Your task to perform on an android device: Is it going to rain today? Image 0: 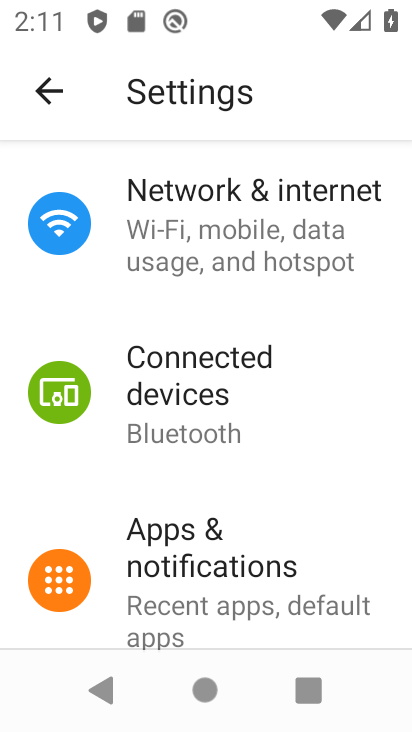
Step 0: press home button
Your task to perform on an android device: Is it going to rain today? Image 1: 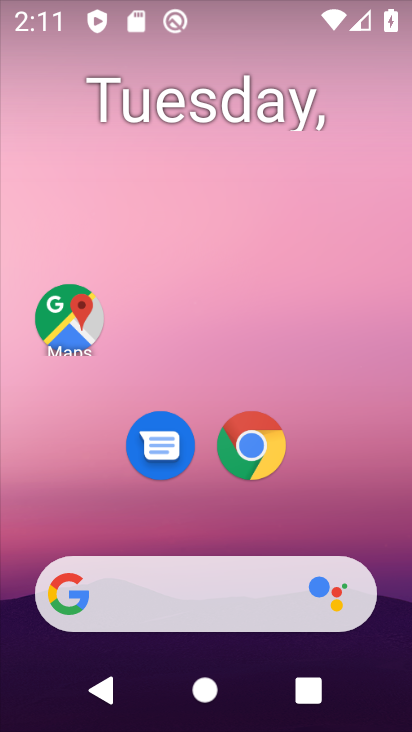
Step 1: drag from (39, 234) to (405, 214)
Your task to perform on an android device: Is it going to rain today? Image 2: 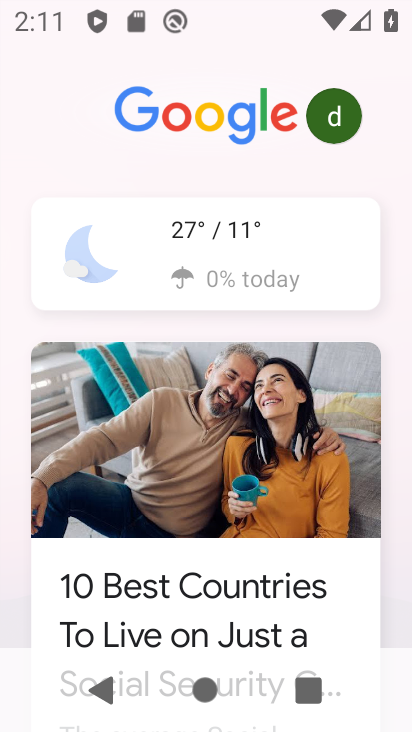
Step 2: click (162, 269)
Your task to perform on an android device: Is it going to rain today? Image 3: 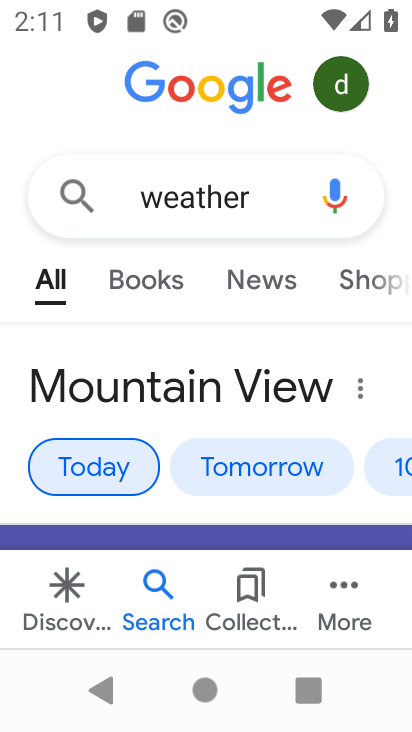
Step 3: drag from (155, 462) to (299, 82)
Your task to perform on an android device: Is it going to rain today? Image 4: 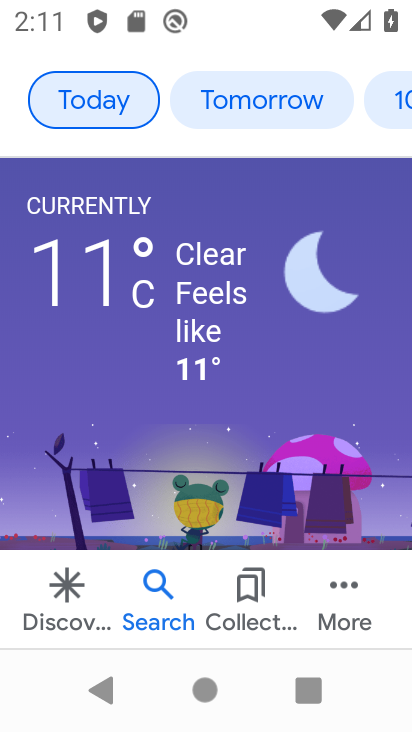
Step 4: drag from (218, 434) to (320, 141)
Your task to perform on an android device: Is it going to rain today? Image 5: 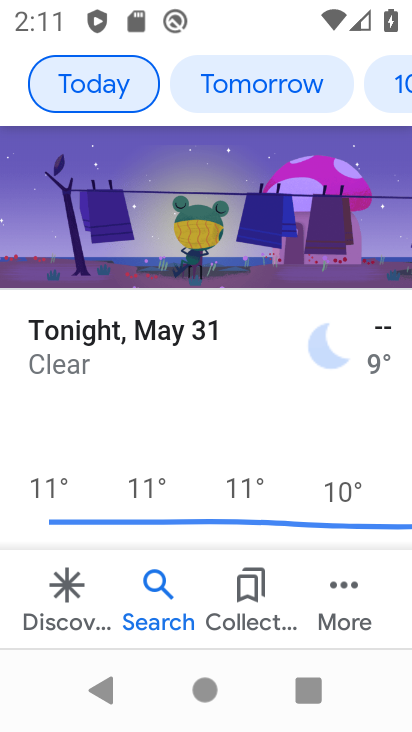
Step 5: drag from (142, 470) to (261, 138)
Your task to perform on an android device: Is it going to rain today? Image 6: 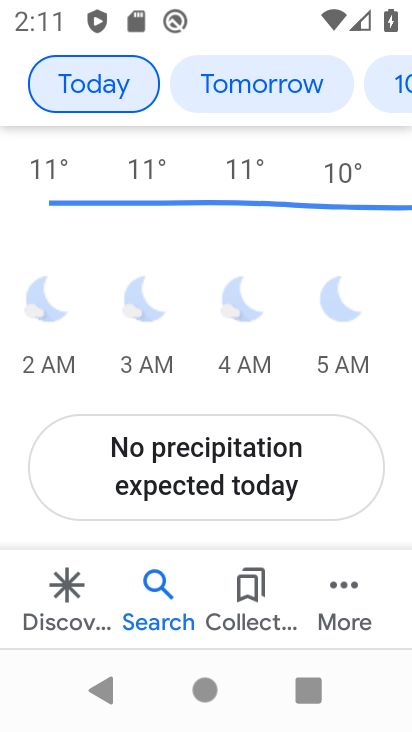
Step 6: drag from (177, 489) to (290, 101)
Your task to perform on an android device: Is it going to rain today? Image 7: 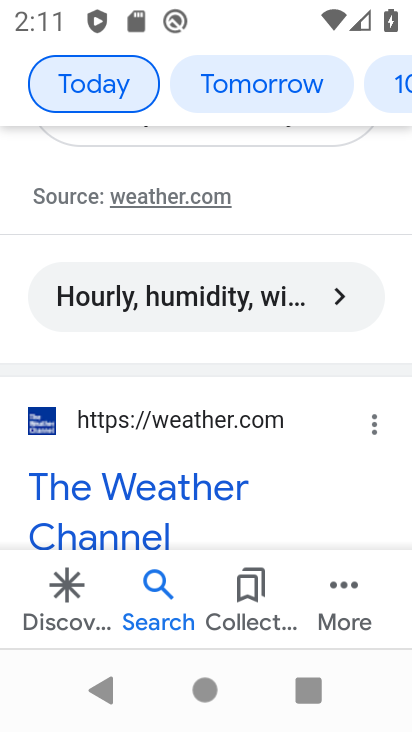
Step 7: click (255, 297)
Your task to perform on an android device: Is it going to rain today? Image 8: 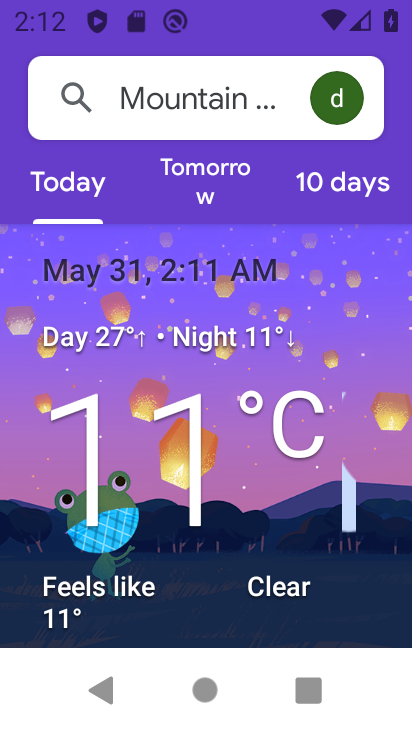
Step 8: task complete